Your task to perform on an android device: delete location history Image 0: 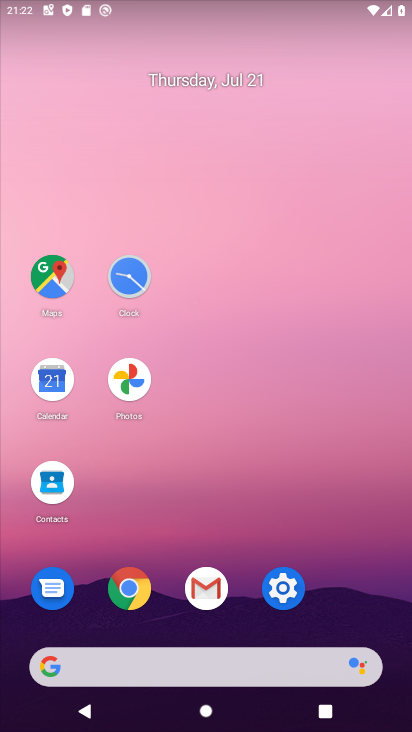
Step 0: click (54, 282)
Your task to perform on an android device: delete location history Image 1: 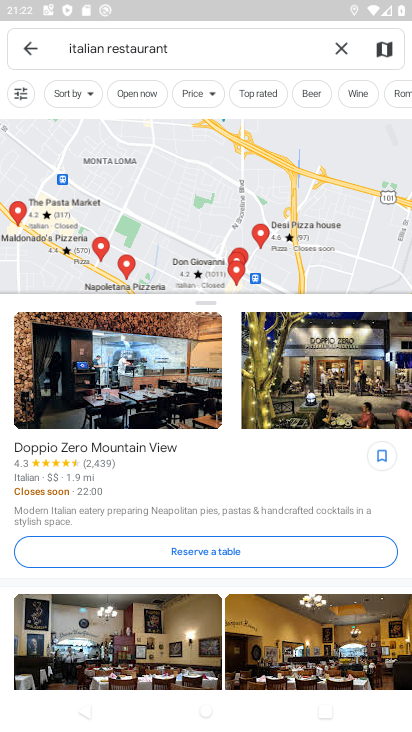
Step 1: click (27, 48)
Your task to perform on an android device: delete location history Image 2: 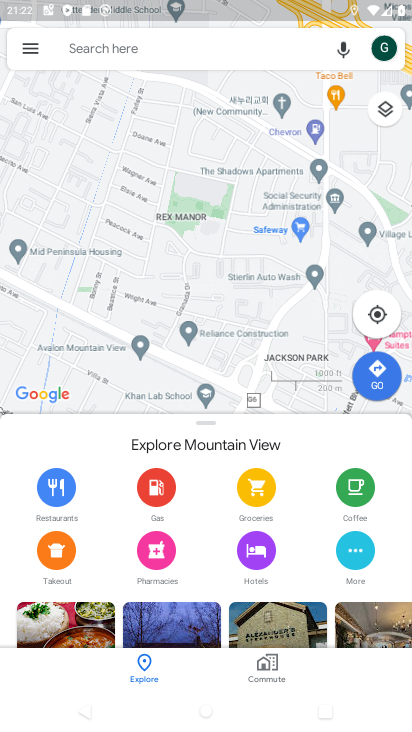
Step 2: click (28, 48)
Your task to perform on an android device: delete location history Image 3: 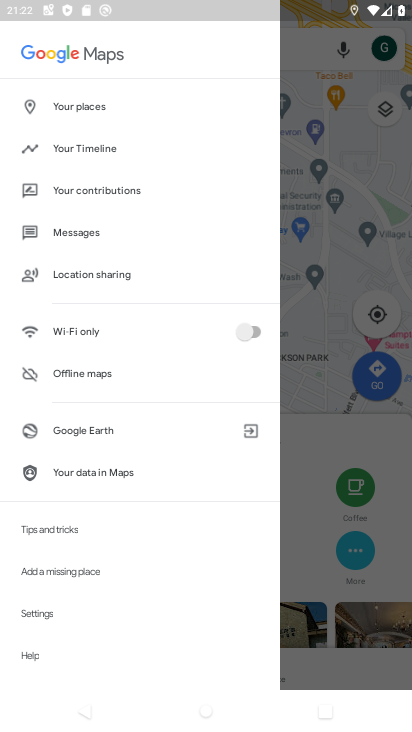
Step 3: click (81, 146)
Your task to perform on an android device: delete location history Image 4: 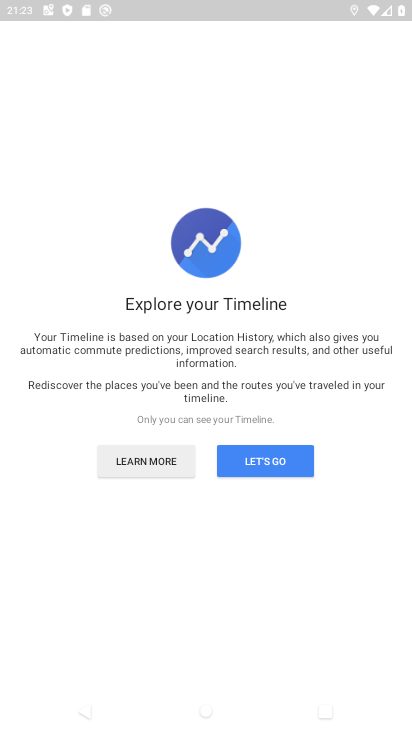
Step 4: click (259, 464)
Your task to perform on an android device: delete location history Image 5: 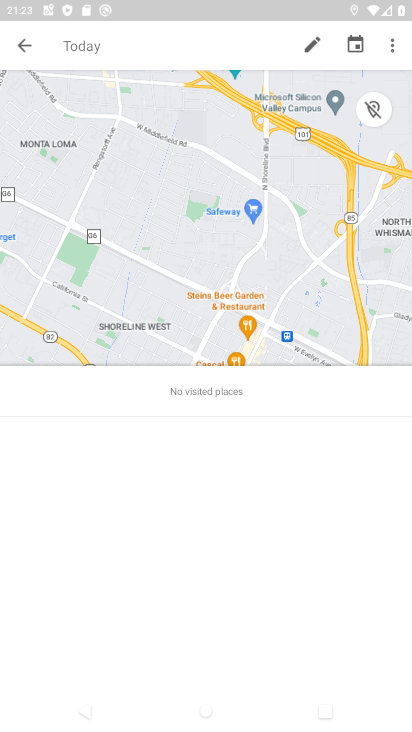
Step 5: click (394, 36)
Your task to perform on an android device: delete location history Image 6: 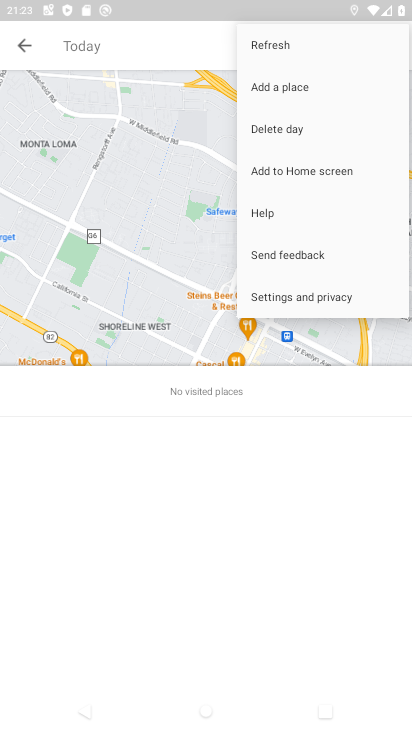
Step 6: click (297, 297)
Your task to perform on an android device: delete location history Image 7: 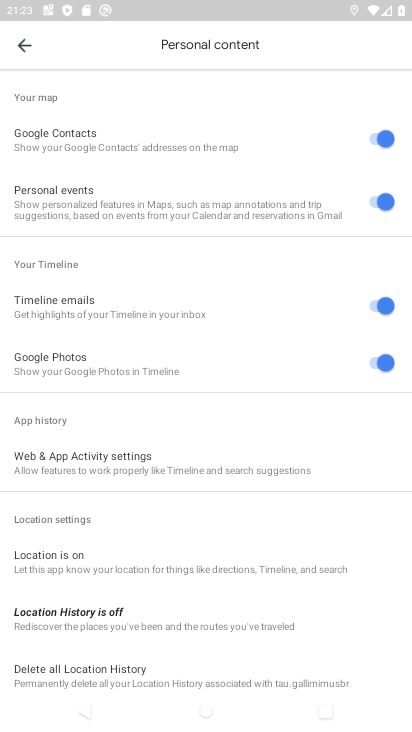
Step 7: click (92, 665)
Your task to perform on an android device: delete location history Image 8: 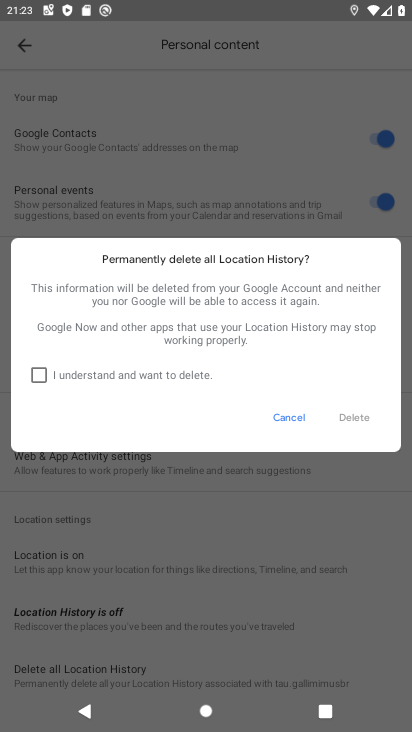
Step 8: click (35, 381)
Your task to perform on an android device: delete location history Image 9: 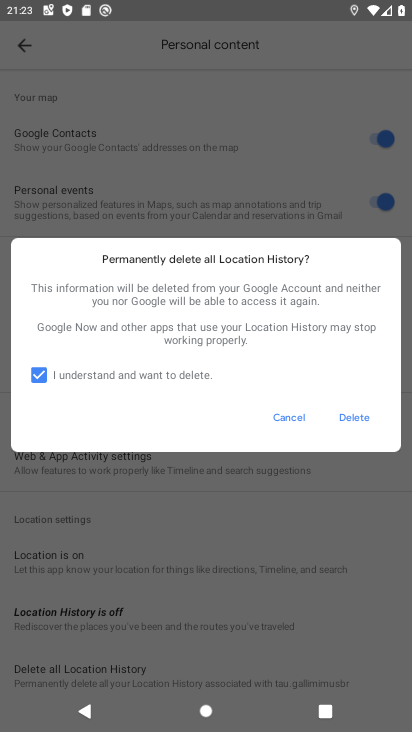
Step 9: click (355, 414)
Your task to perform on an android device: delete location history Image 10: 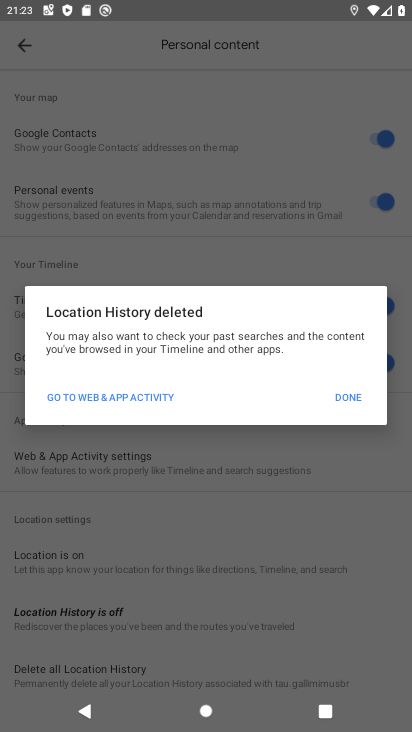
Step 10: click (342, 392)
Your task to perform on an android device: delete location history Image 11: 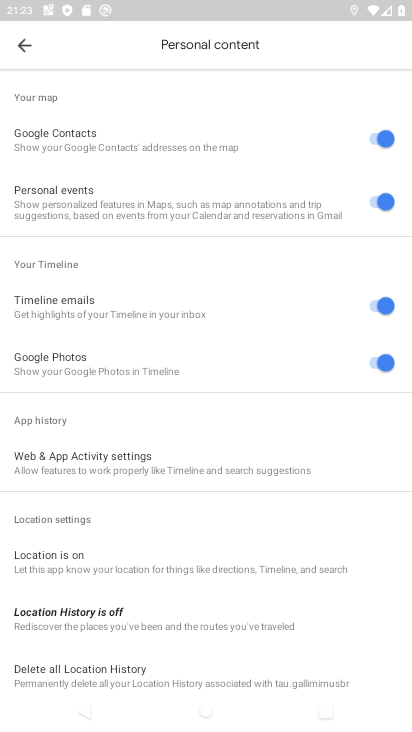
Step 11: task complete